Your task to perform on an android device: open app "Firefox Browser" Image 0: 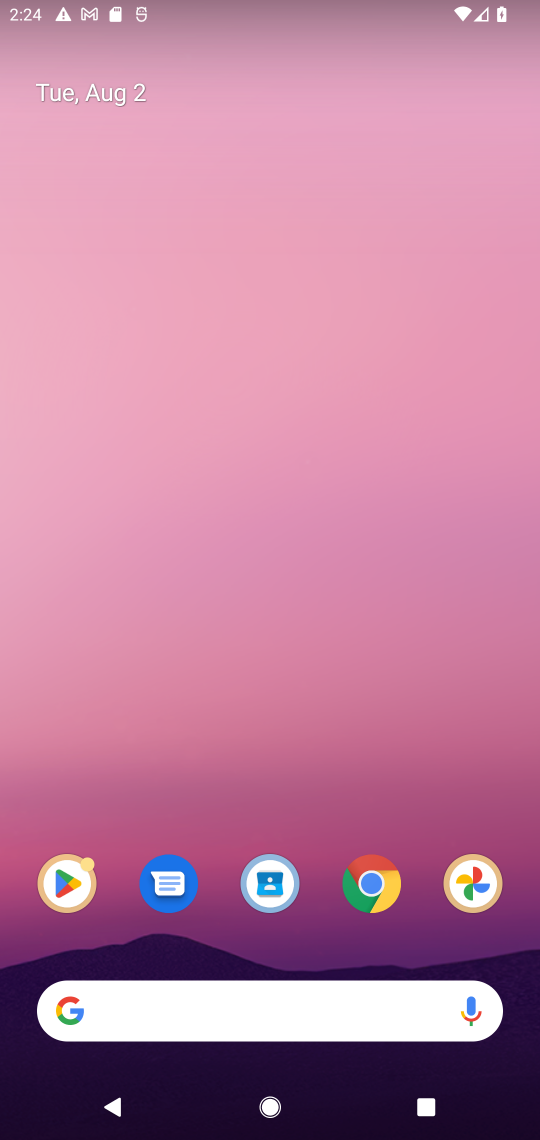
Step 0: press home button
Your task to perform on an android device: open app "Firefox Browser" Image 1: 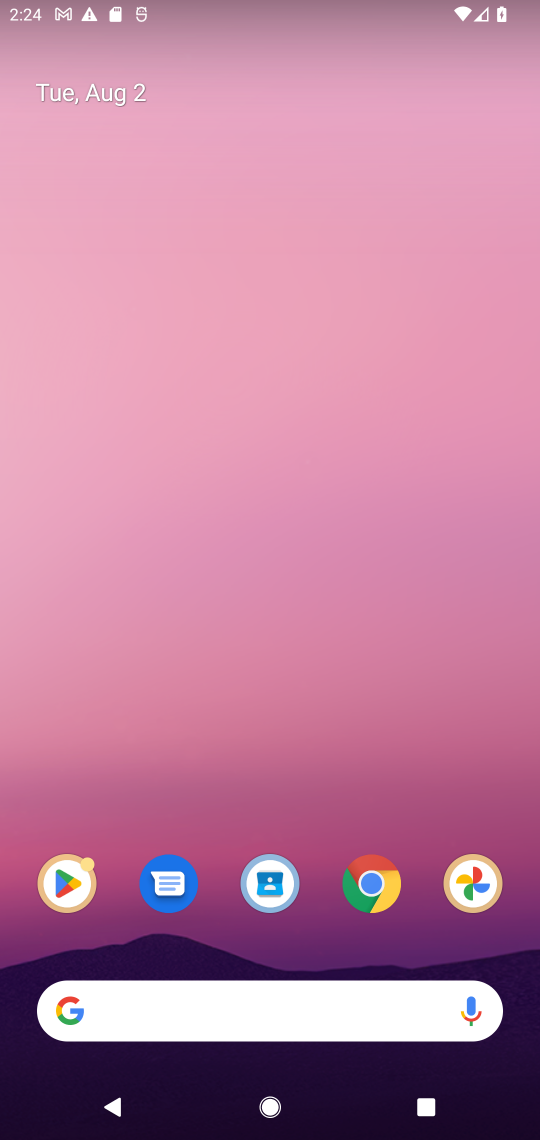
Step 1: click (60, 913)
Your task to perform on an android device: open app "Firefox Browser" Image 2: 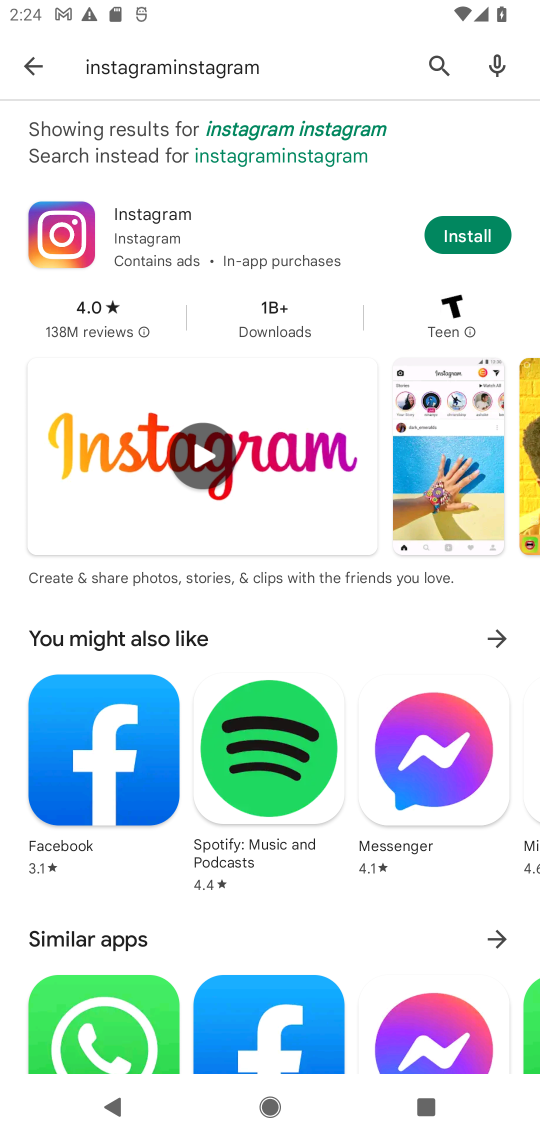
Step 2: click (421, 54)
Your task to perform on an android device: open app "Firefox Browser" Image 3: 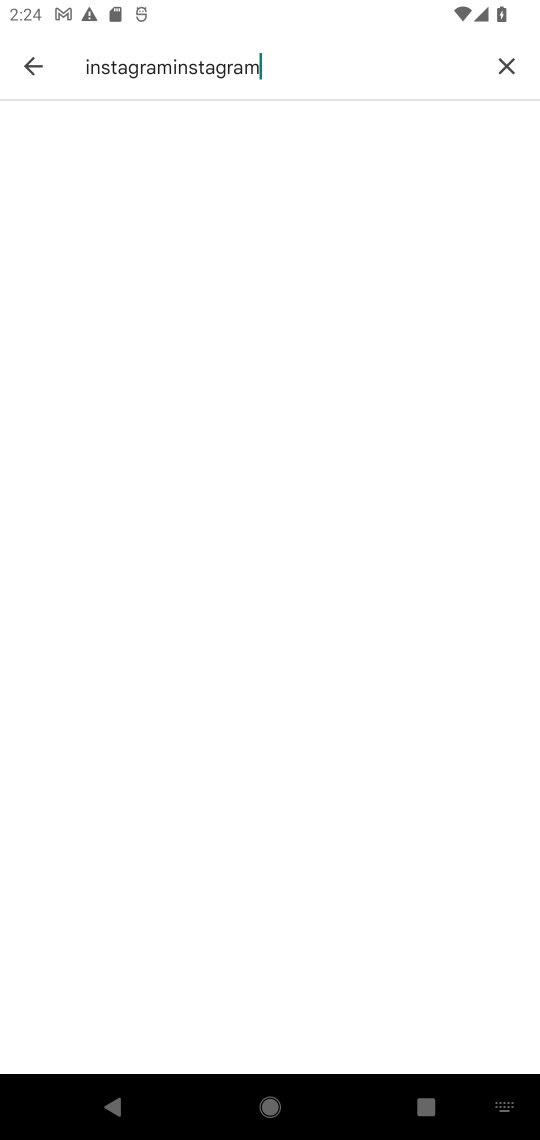
Step 3: click (498, 72)
Your task to perform on an android device: open app "Firefox Browser" Image 4: 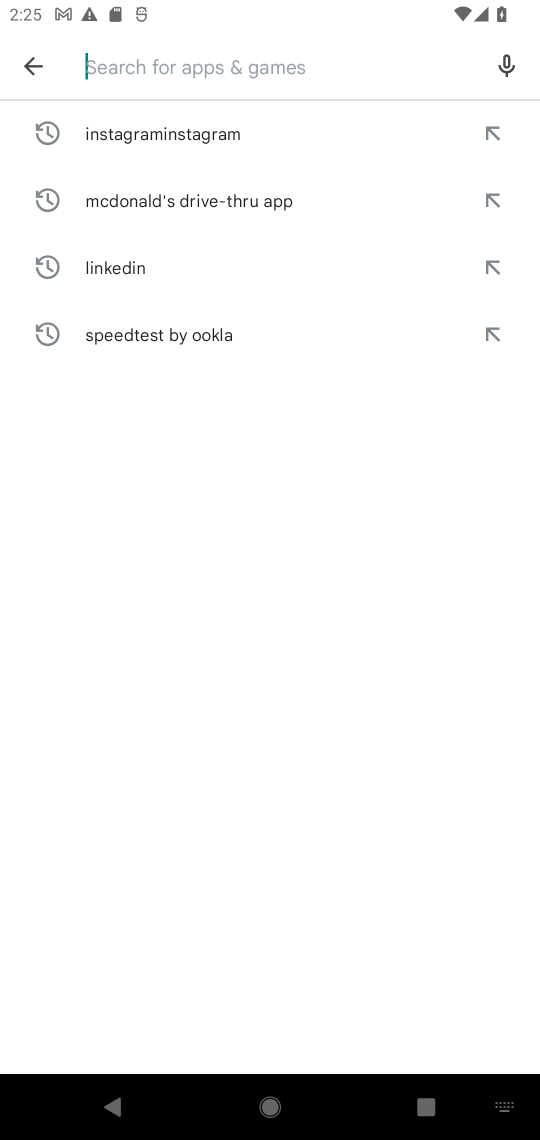
Step 4: type "Firefox Browser"
Your task to perform on an android device: open app "Firefox Browser" Image 5: 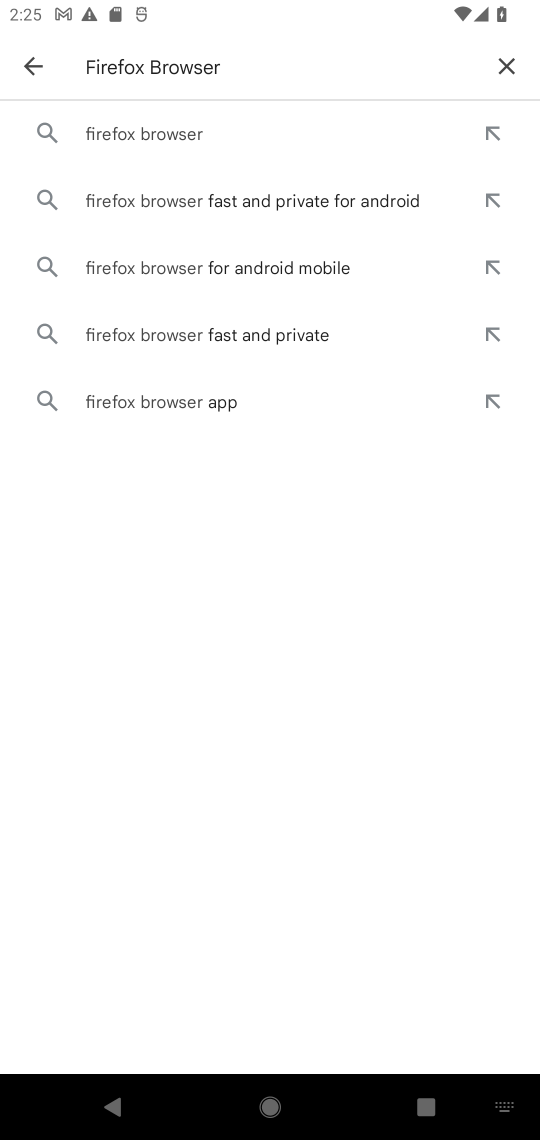
Step 5: click (181, 129)
Your task to perform on an android device: open app "Firefox Browser" Image 6: 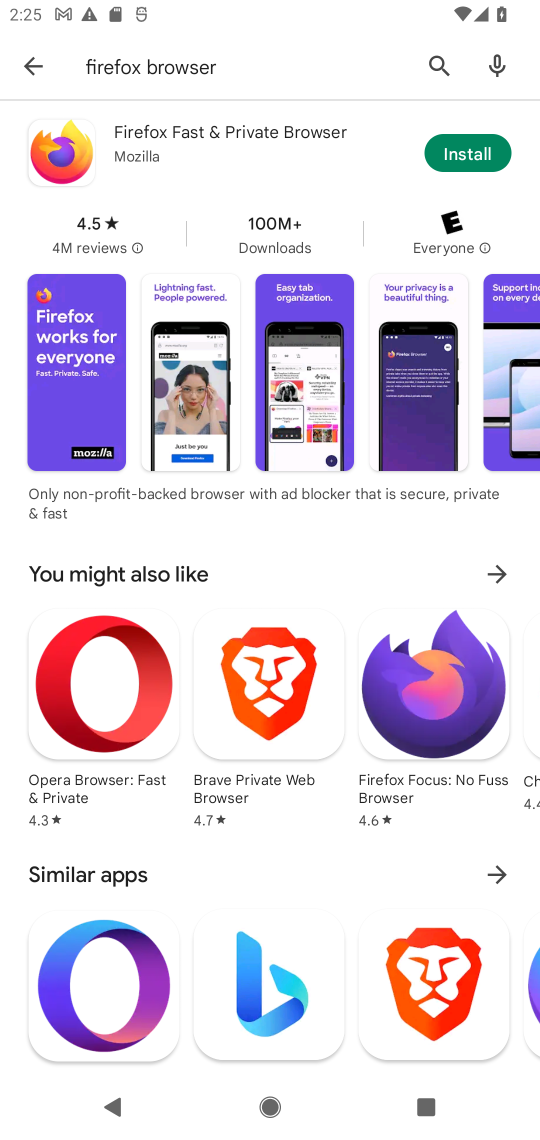
Step 6: click (473, 160)
Your task to perform on an android device: open app "Firefox Browser" Image 7: 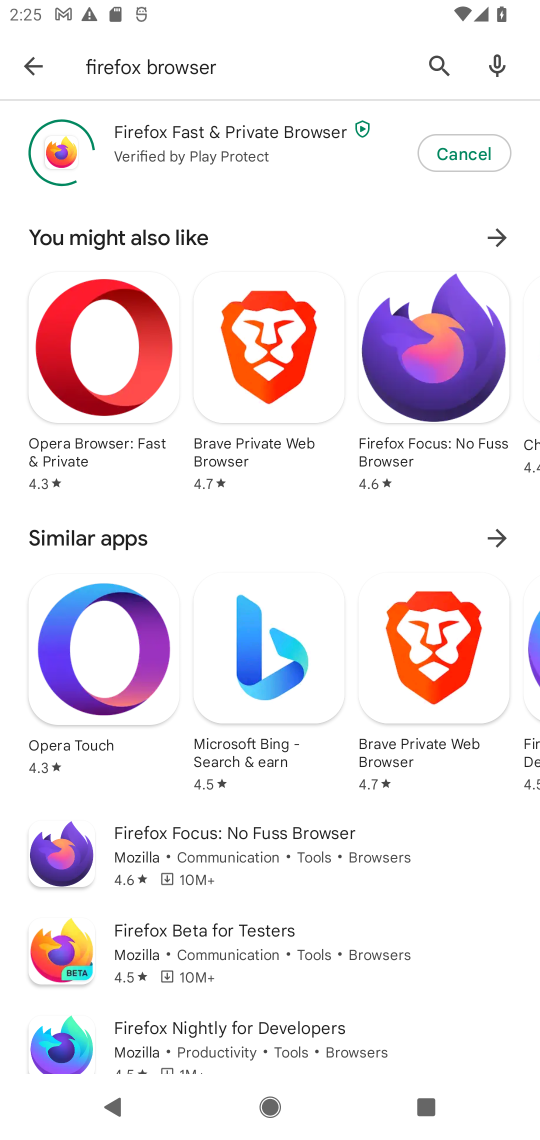
Step 7: click (473, 160)
Your task to perform on an android device: open app "Firefox Browser" Image 8: 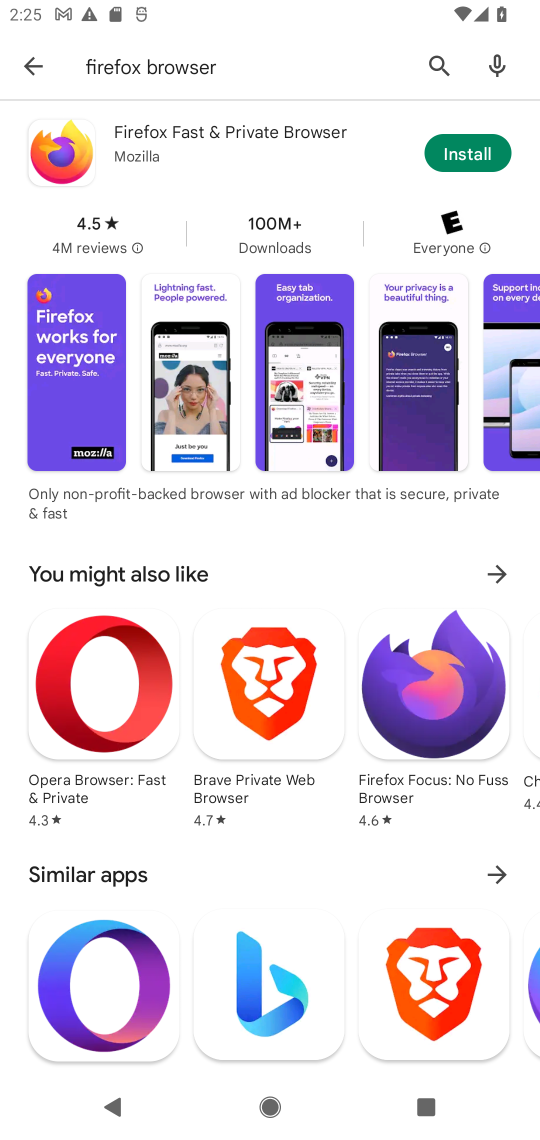
Step 8: task complete